Your task to perform on an android device: open app "Venmo" Image 0: 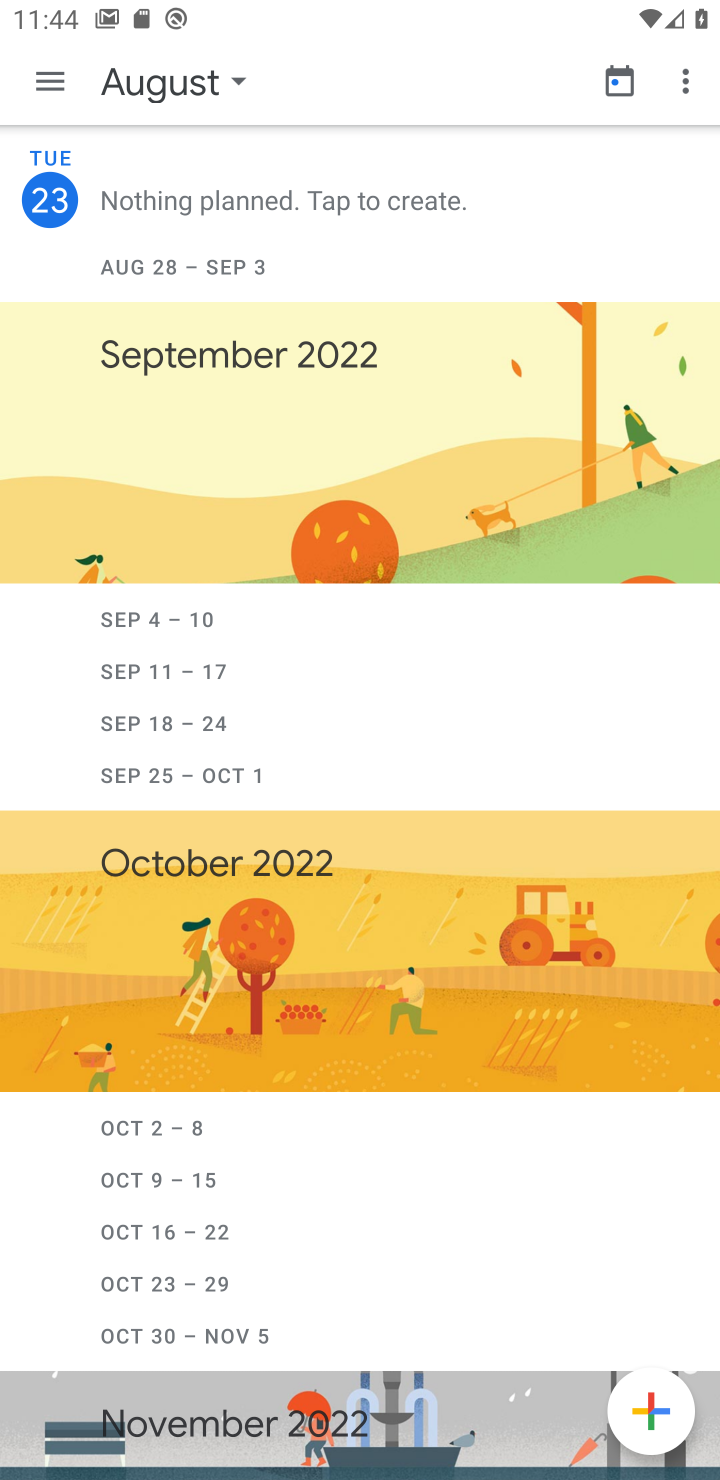
Step 0: press home button
Your task to perform on an android device: open app "Venmo" Image 1: 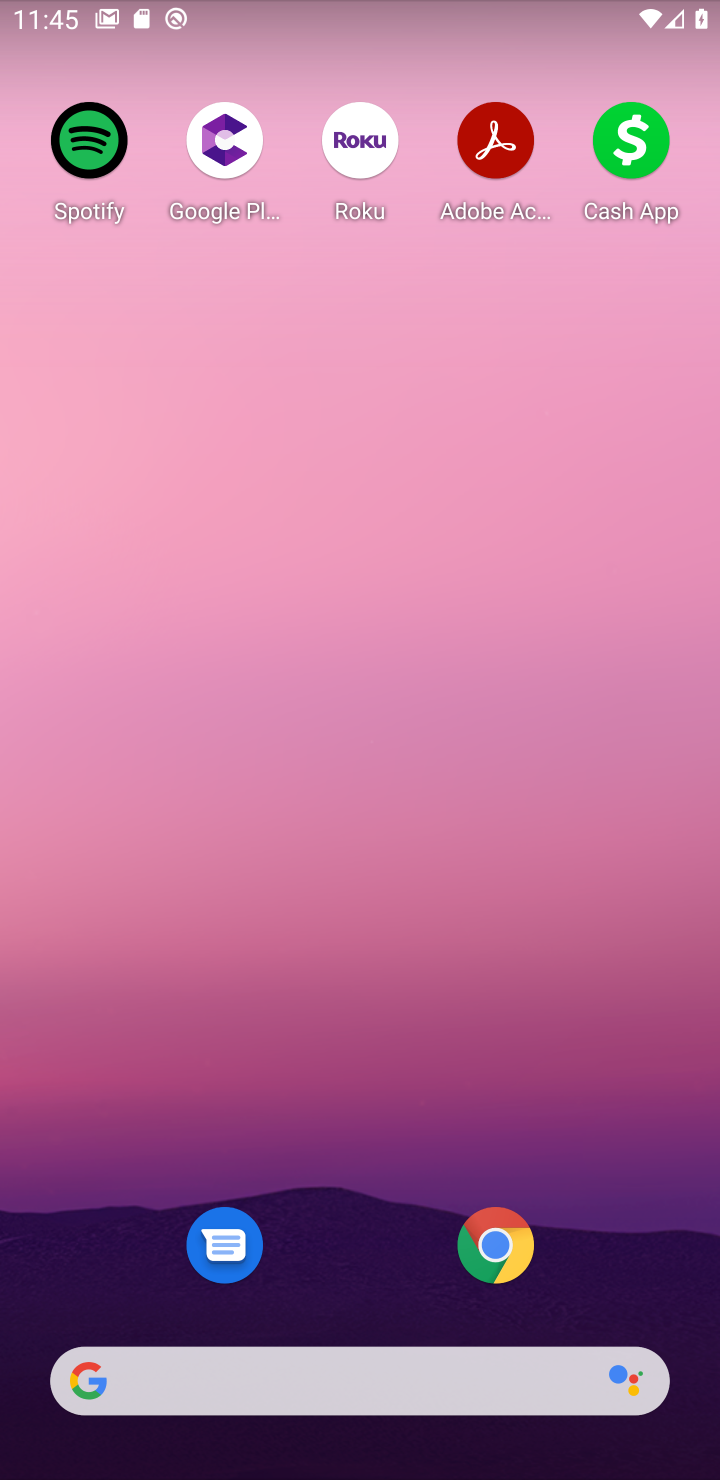
Step 1: press home button
Your task to perform on an android device: open app "Venmo" Image 2: 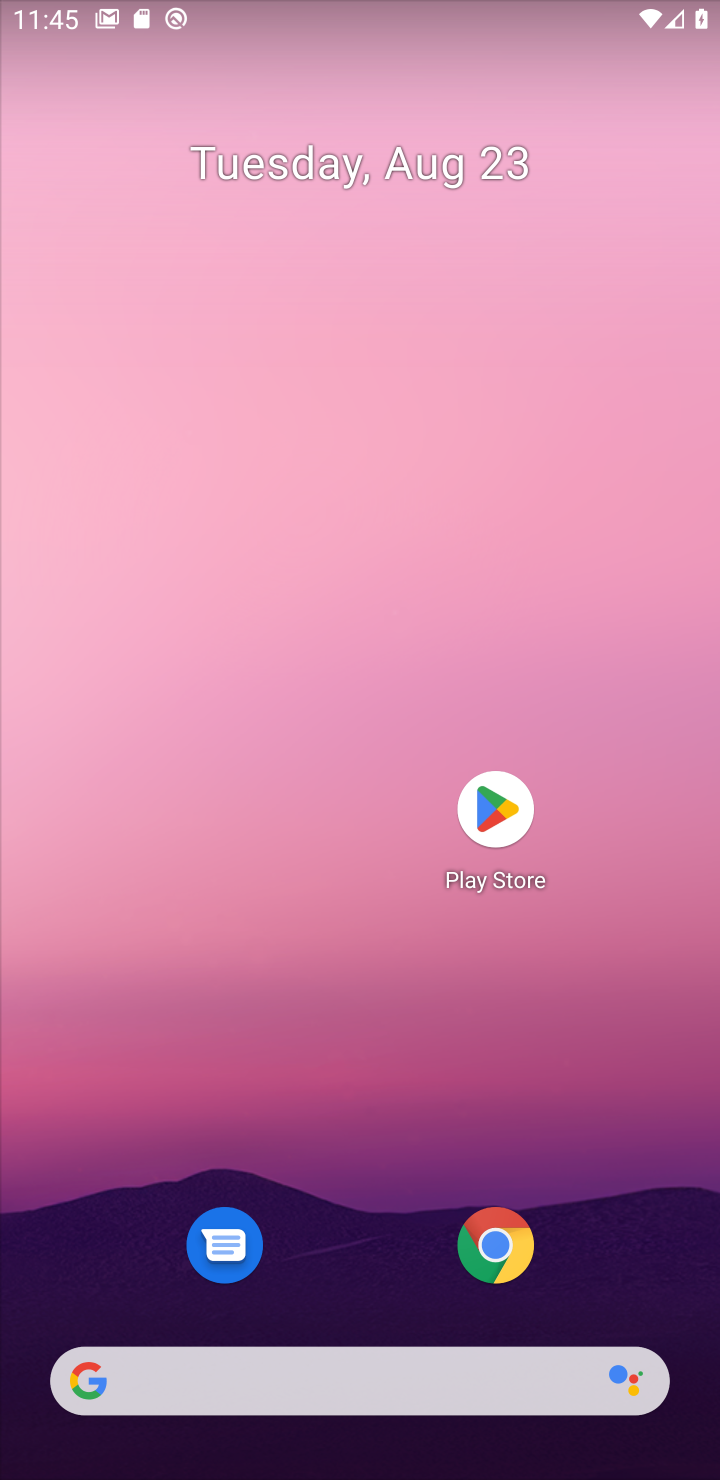
Step 2: click (482, 803)
Your task to perform on an android device: open app "Venmo" Image 3: 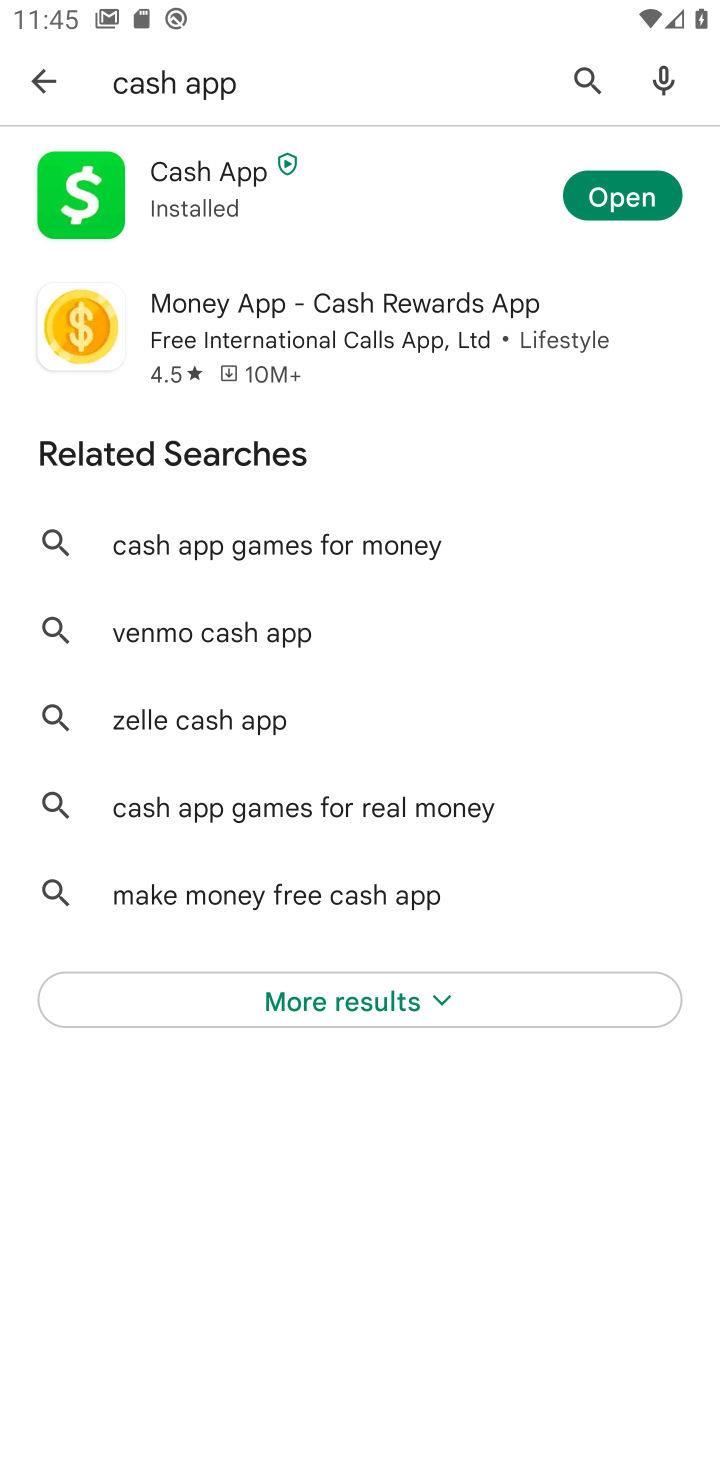
Step 3: click (580, 75)
Your task to perform on an android device: open app "Venmo" Image 4: 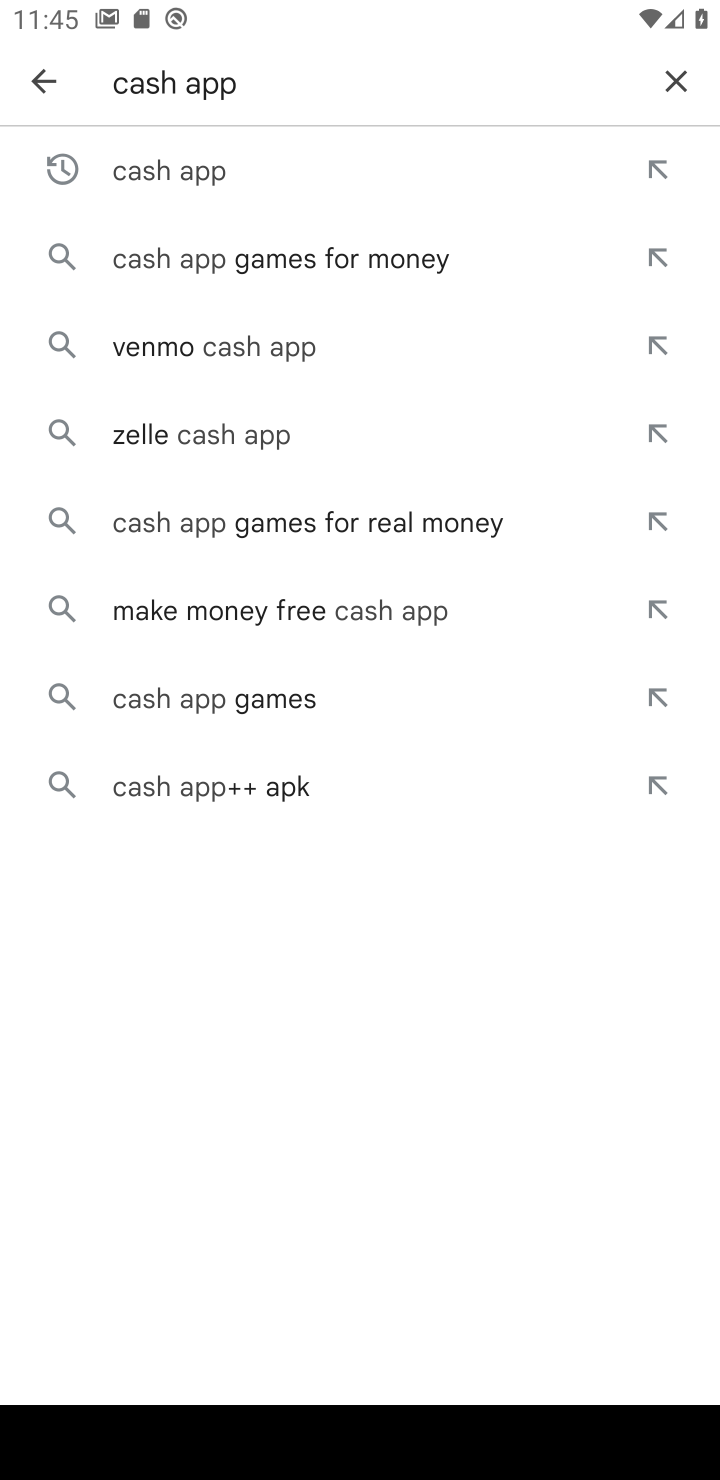
Step 4: click (670, 69)
Your task to perform on an android device: open app "Venmo" Image 5: 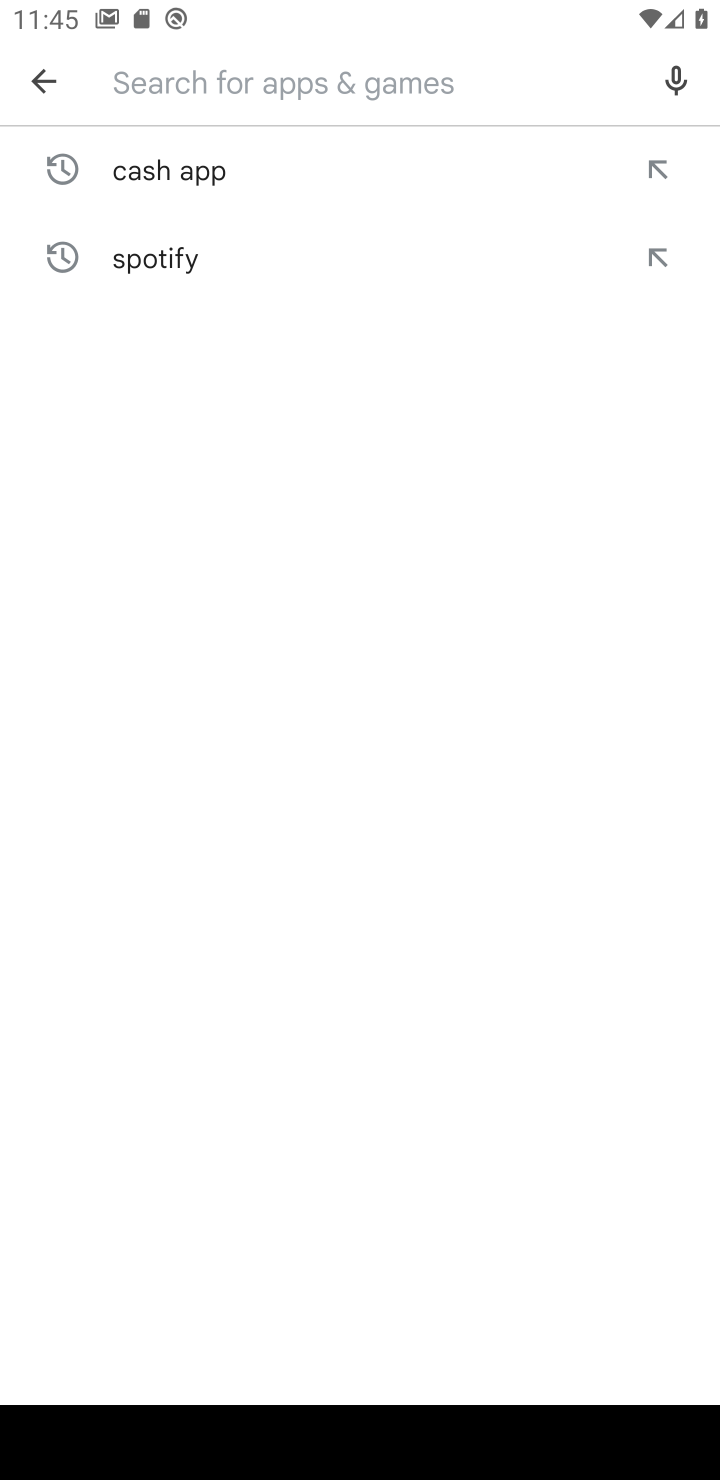
Step 5: type "Venmo"
Your task to perform on an android device: open app "Venmo" Image 6: 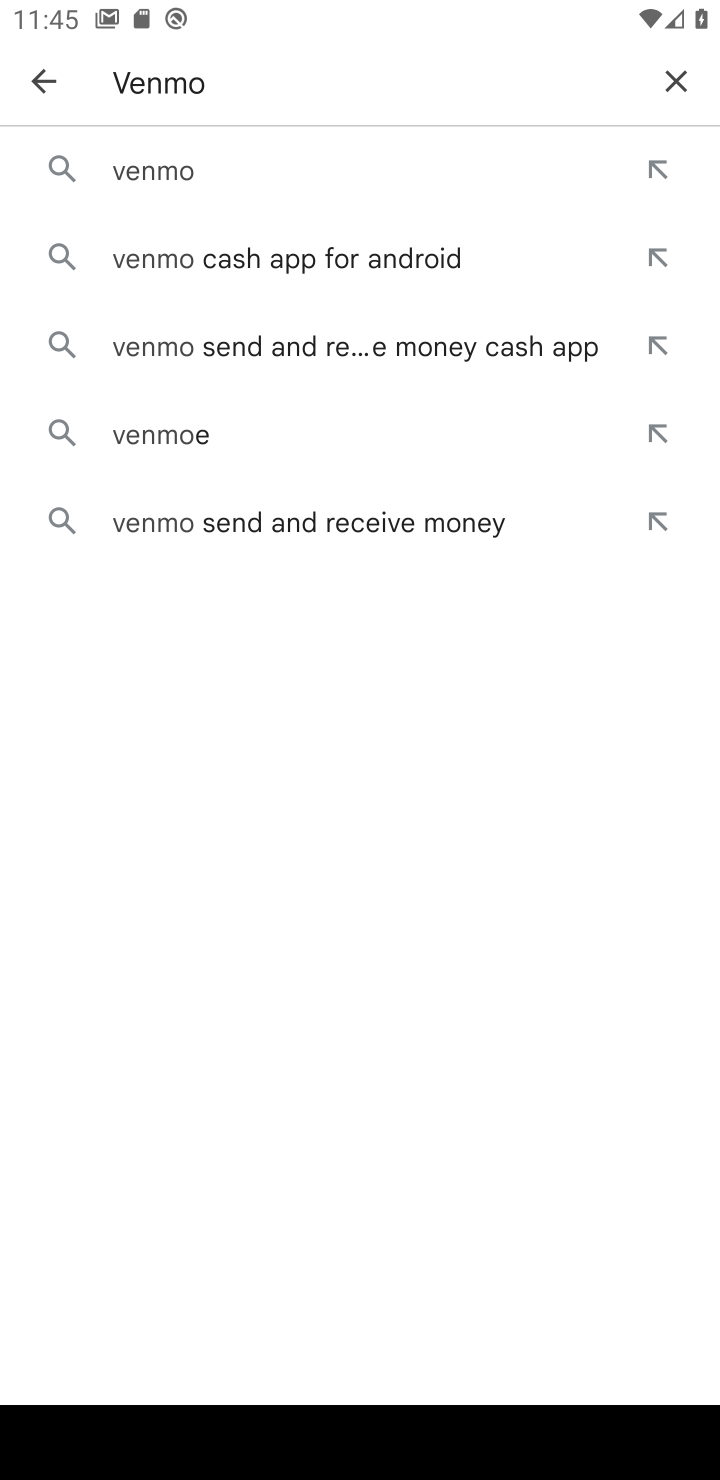
Step 6: click (151, 171)
Your task to perform on an android device: open app "Venmo" Image 7: 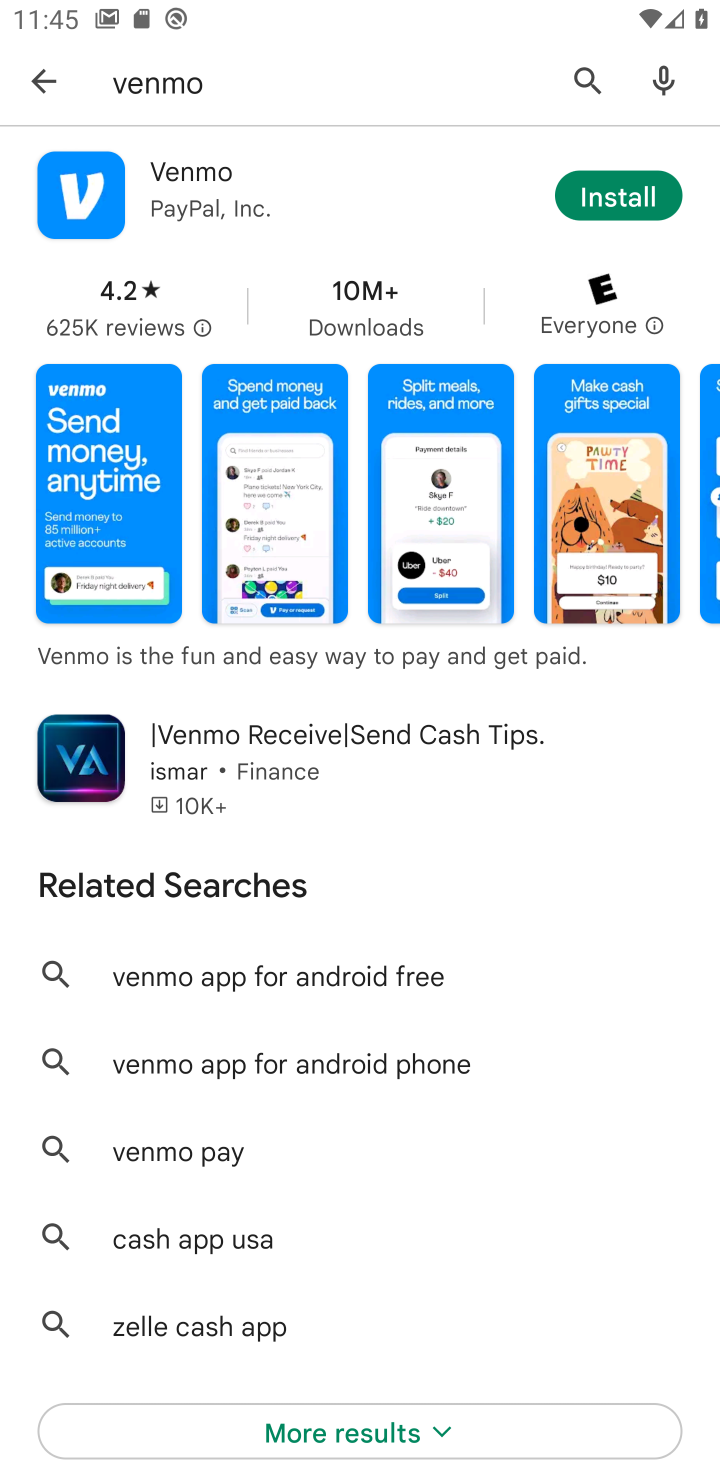
Step 7: task complete